Your task to perform on an android device: add a contact in the contacts app Image 0: 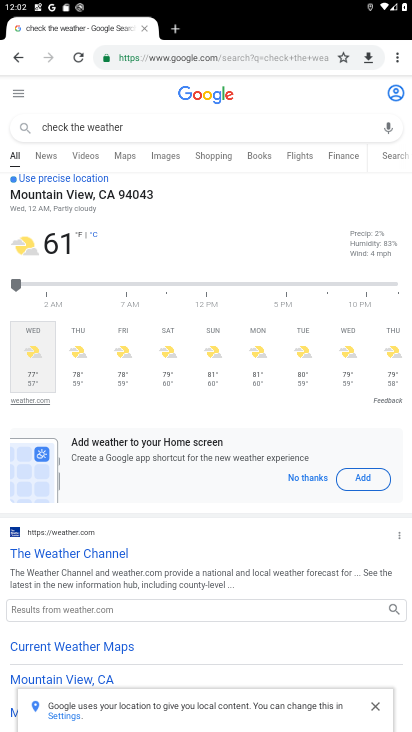
Step 0: press home button
Your task to perform on an android device: add a contact in the contacts app Image 1: 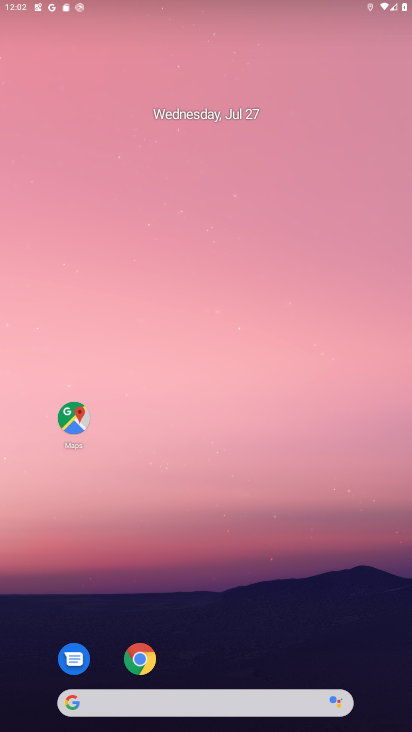
Step 1: drag from (213, 552) to (253, 11)
Your task to perform on an android device: add a contact in the contacts app Image 2: 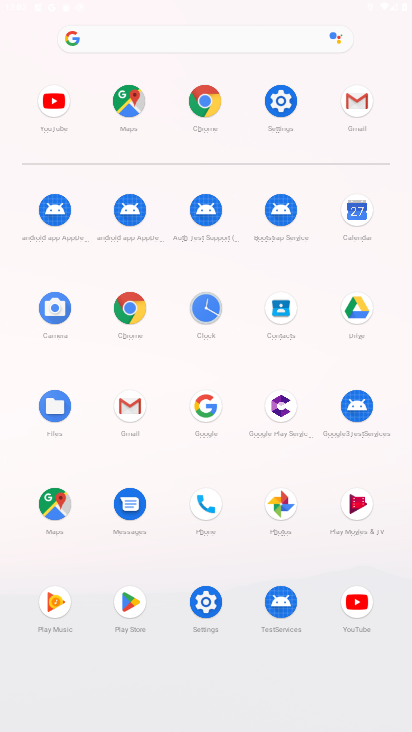
Step 2: click (282, 318)
Your task to perform on an android device: add a contact in the contacts app Image 3: 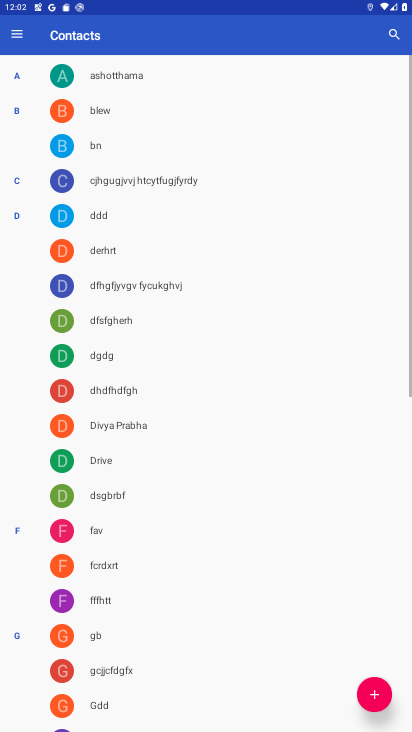
Step 3: click (379, 688)
Your task to perform on an android device: add a contact in the contacts app Image 4: 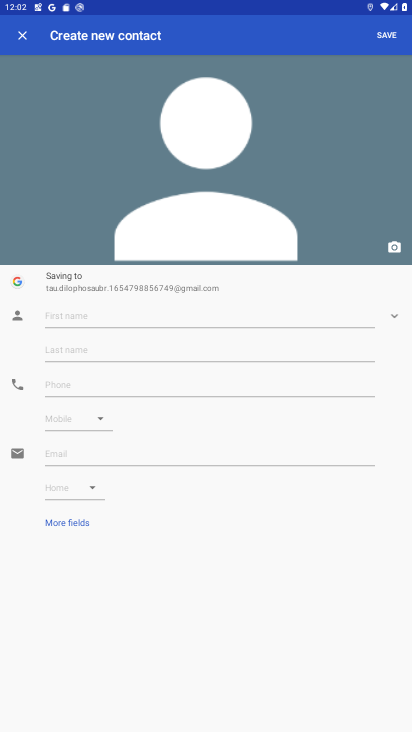
Step 4: click (217, 304)
Your task to perform on an android device: add a contact in the contacts app Image 5: 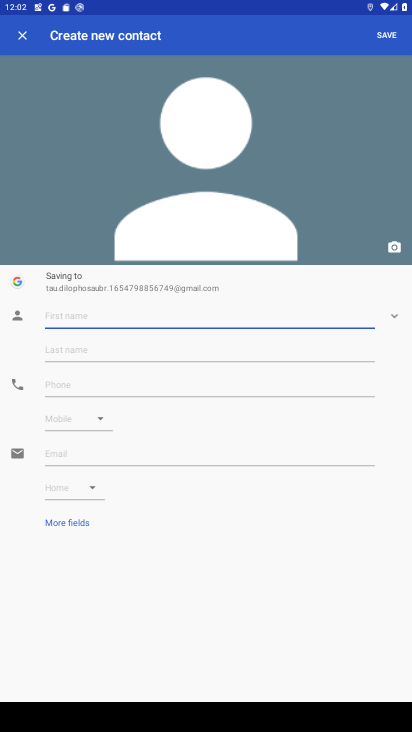
Step 5: type "manisha "
Your task to perform on an android device: add a contact in the contacts app Image 6: 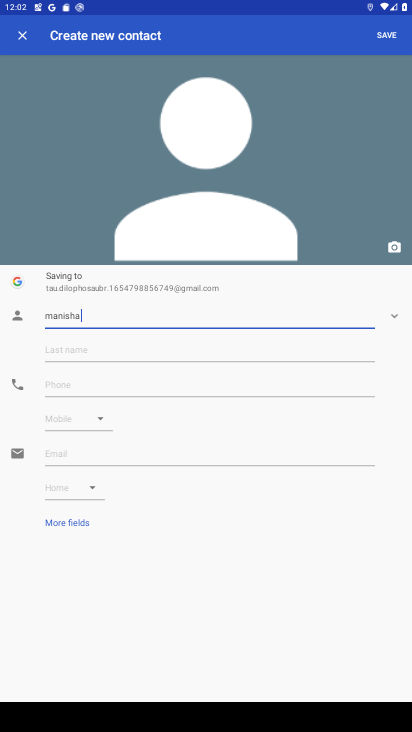
Step 6: click (97, 397)
Your task to perform on an android device: add a contact in the contacts app Image 7: 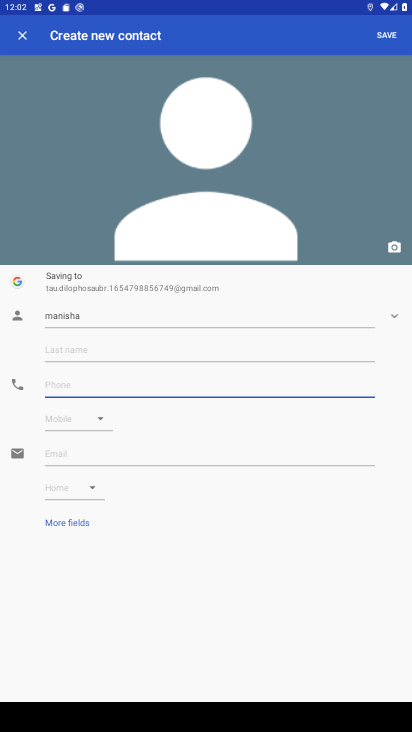
Step 7: type "98976756787"
Your task to perform on an android device: add a contact in the contacts app Image 8: 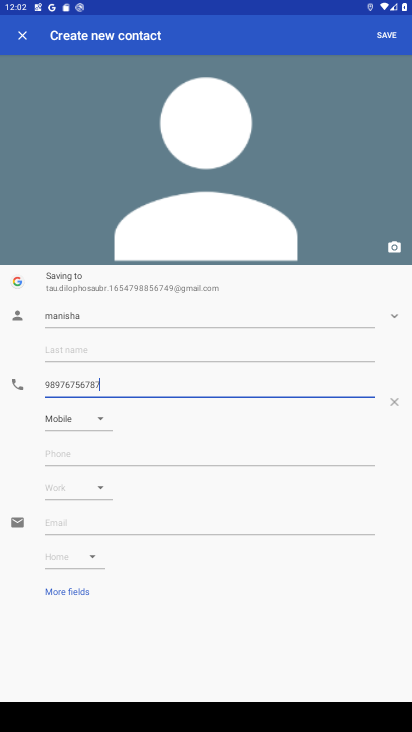
Step 8: click (397, 35)
Your task to perform on an android device: add a contact in the contacts app Image 9: 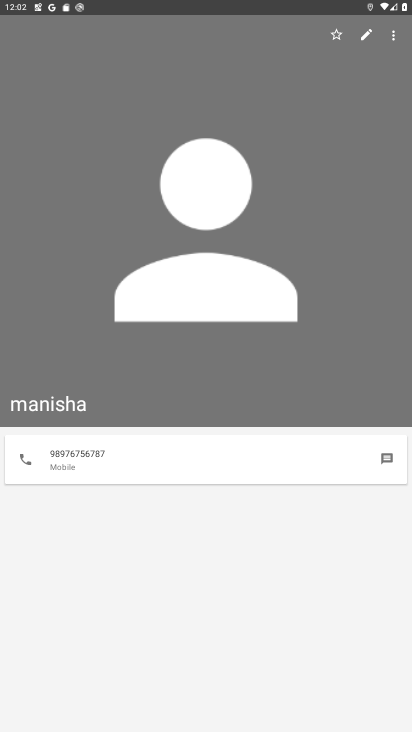
Step 9: task complete